Your task to perform on an android device: Check the weather Image 0: 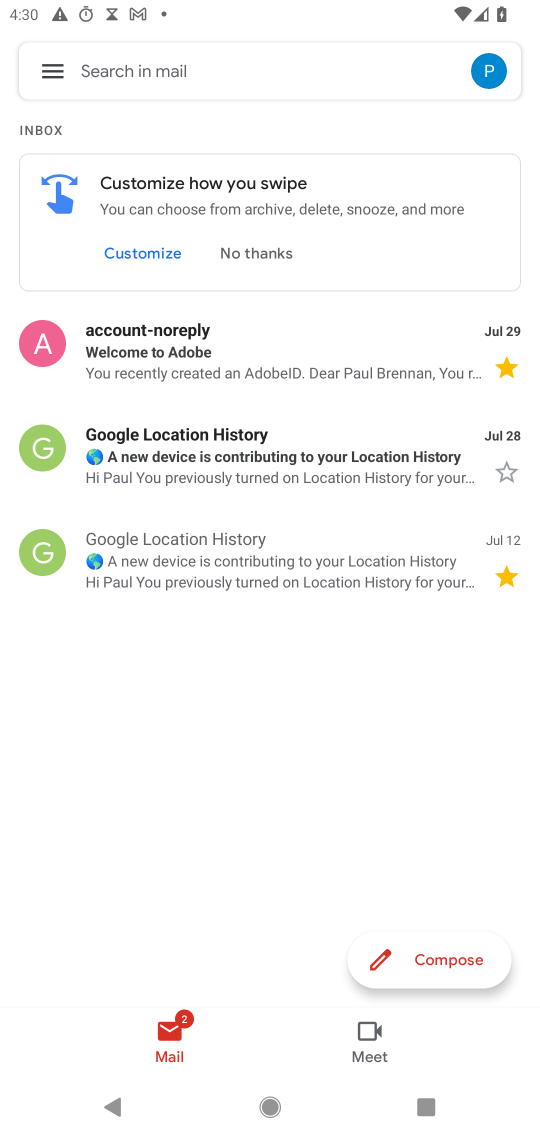
Step 0: press home button
Your task to perform on an android device: Check the weather Image 1: 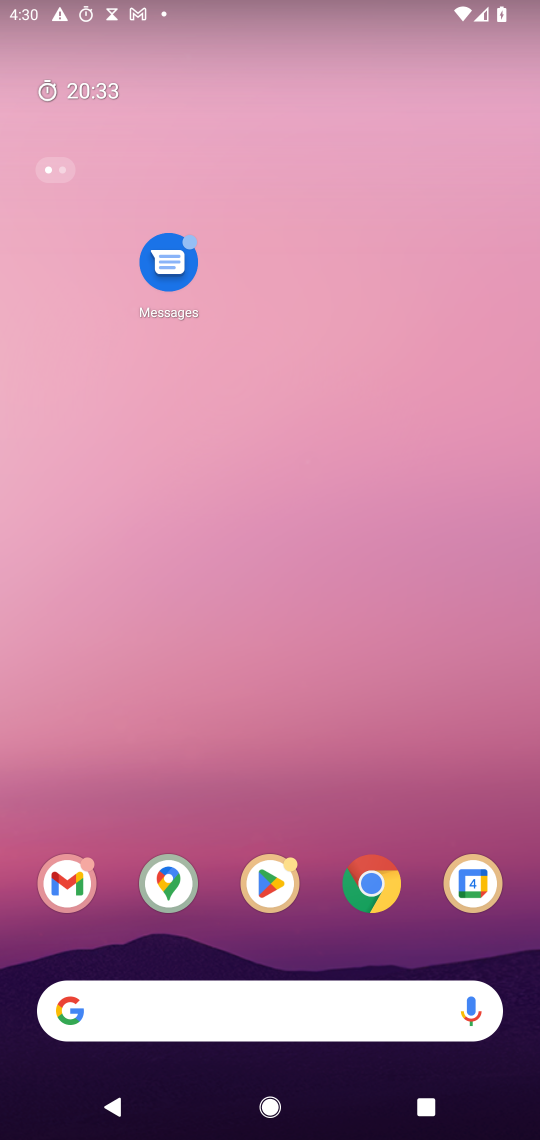
Step 1: drag from (326, 760) to (326, 64)
Your task to perform on an android device: Check the weather Image 2: 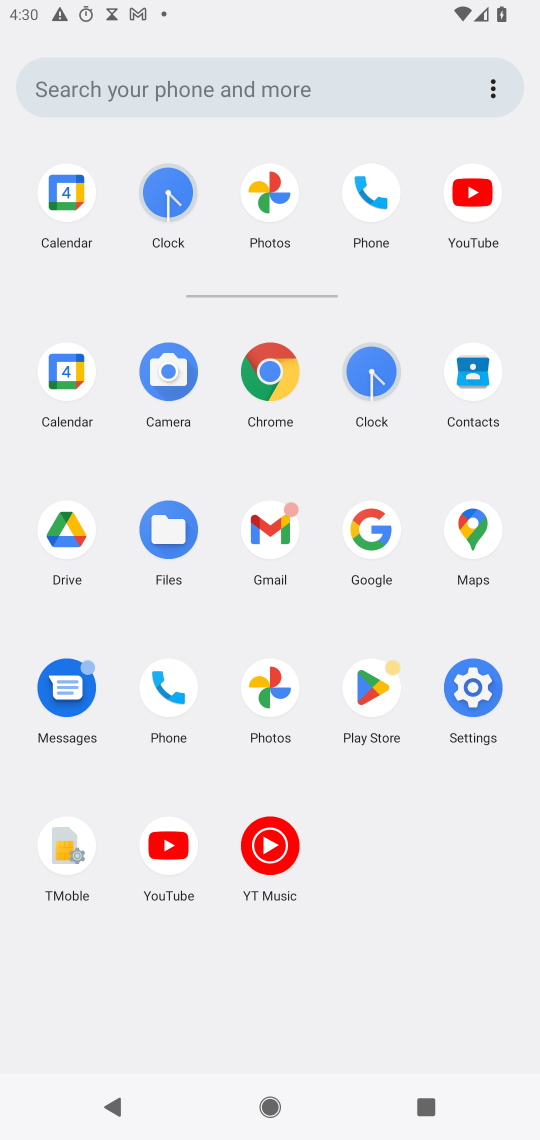
Step 2: click (380, 532)
Your task to perform on an android device: Check the weather Image 3: 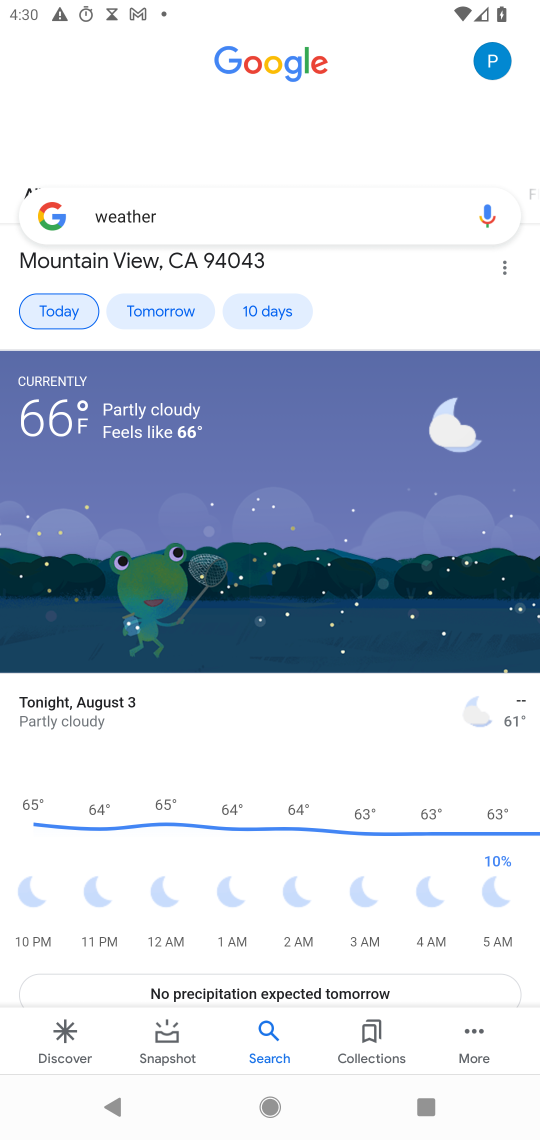
Step 3: click (68, 307)
Your task to perform on an android device: Check the weather Image 4: 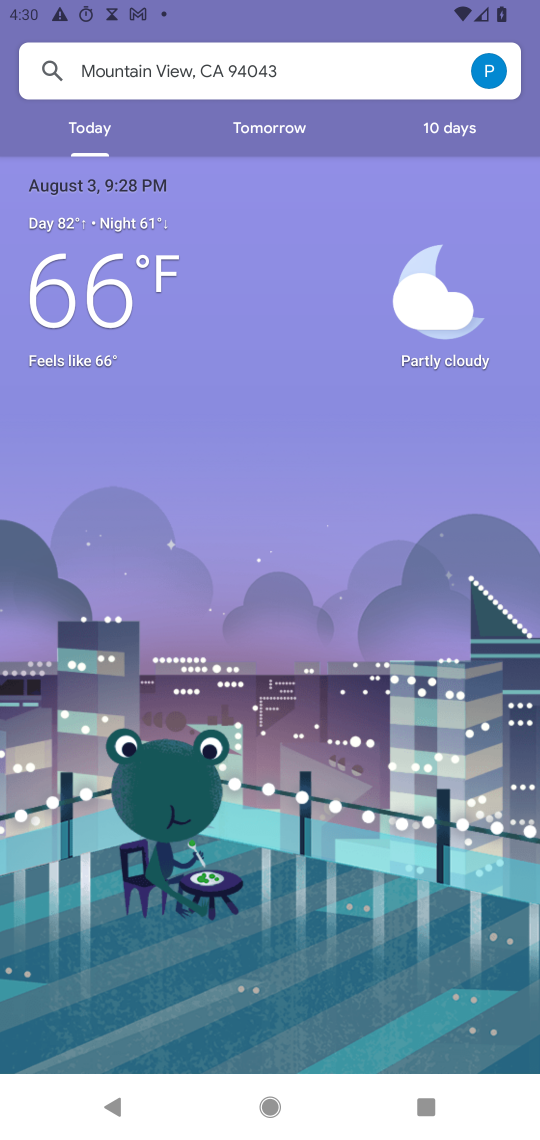
Step 4: task complete